Your task to perform on an android device: Do I have any events tomorrow? Image 0: 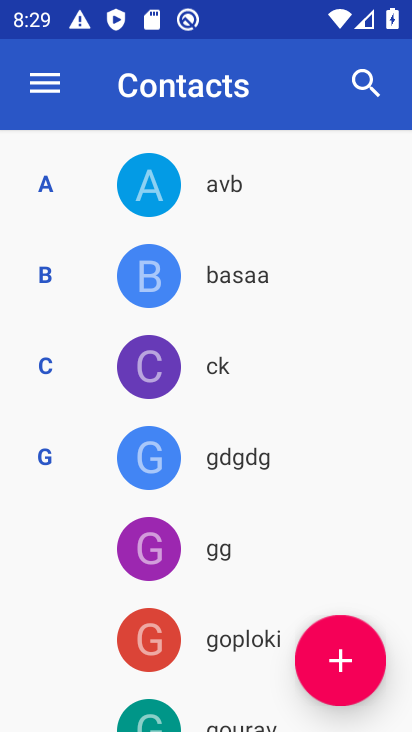
Step 0: press home button
Your task to perform on an android device: Do I have any events tomorrow? Image 1: 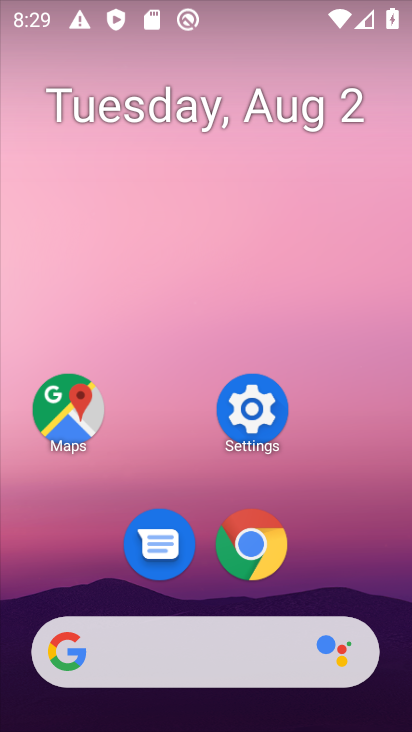
Step 1: drag from (205, 662) to (365, 60)
Your task to perform on an android device: Do I have any events tomorrow? Image 2: 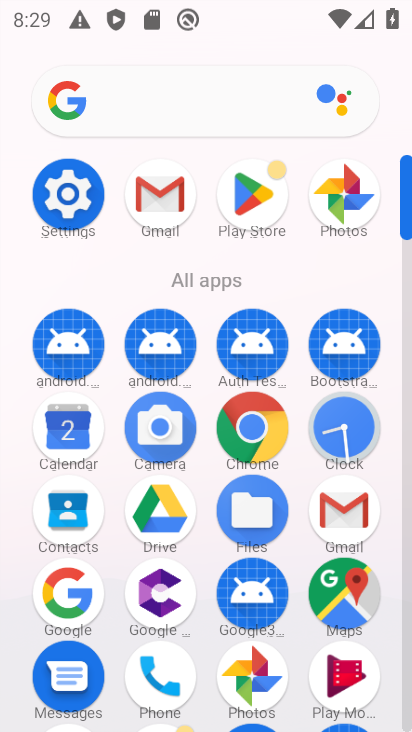
Step 2: click (67, 446)
Your task to perform on an android device: Do I have any events tomorrow? Image 3: 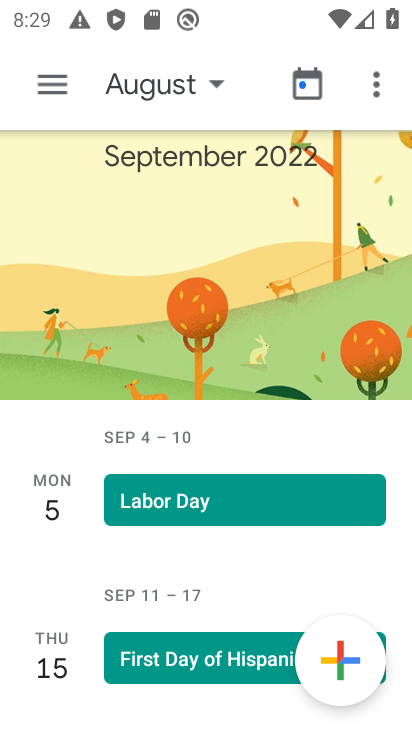
Step 3: click (144, 87)
Your task to perform on an android device: Do I have any events tomorrow? Image 4: 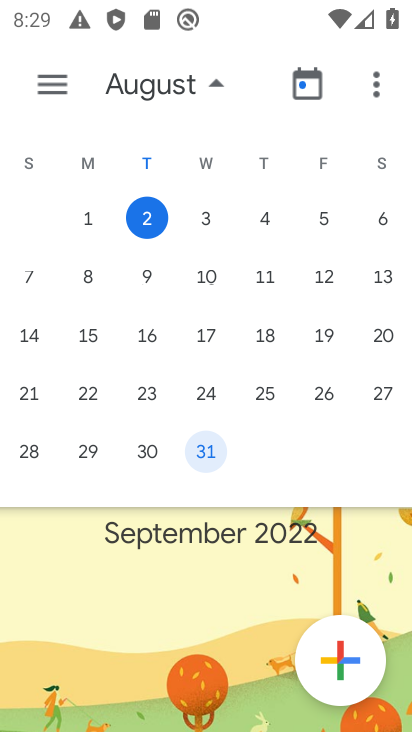
Step 4: click (209, 223)
Your task to perform on an android device: Do I have any events tomorrow? Image 5: 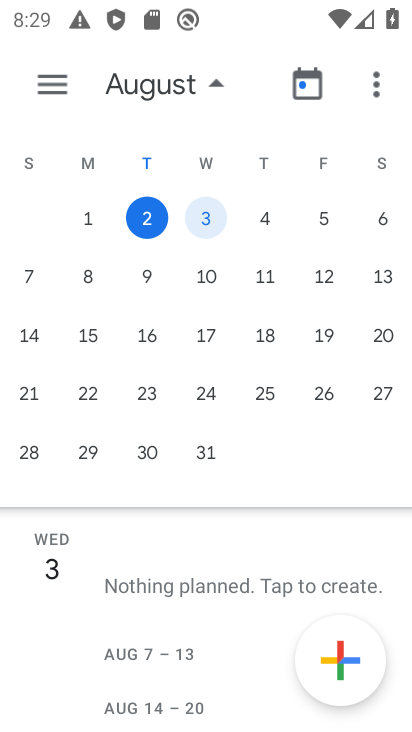
Step 5: click (60, 81)
Your task to perform on an android device: Do I have any events tomorrow? Image 6: 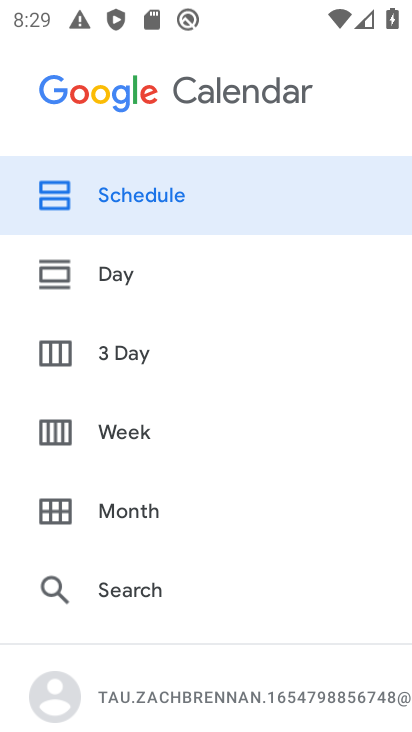
Step 6: click (117, 184)
Your task to perform on an android device: Do I have any events tomorrow? Image 7: 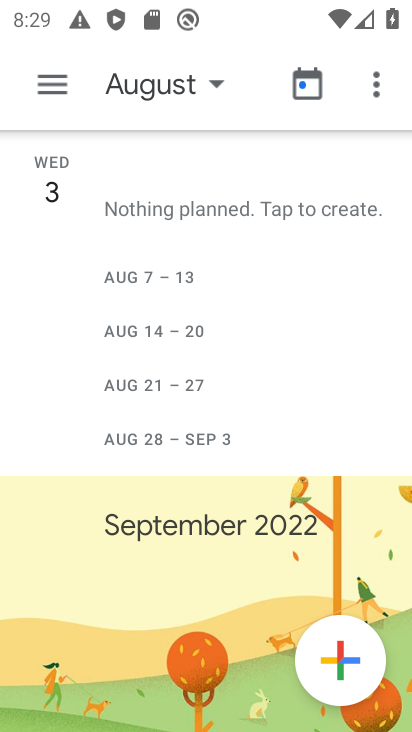
Step 7: task complete